Your task to perform on an android device: Go to ESPN.com Image 0: 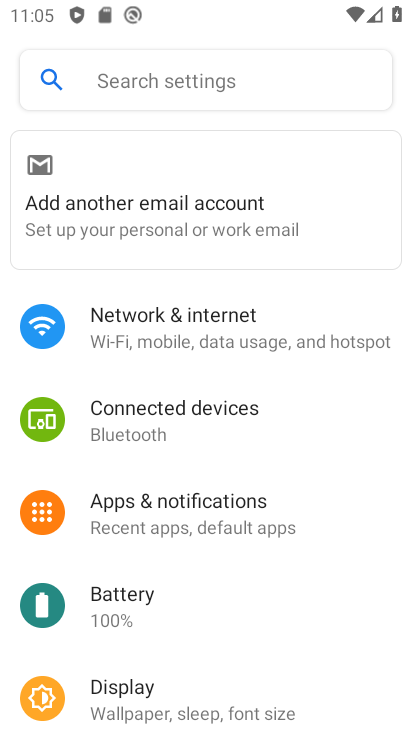
Step 0: press home button
Your task to perform on an android device: Go to ESPN.com Image 1: 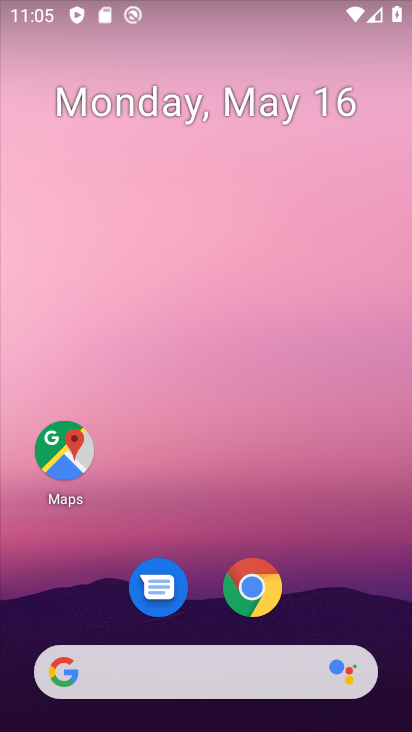
Step 1: drag from (322, 523) to (302, 266)
Your task to perform on an android device: Go to ESPN.com Image 2: 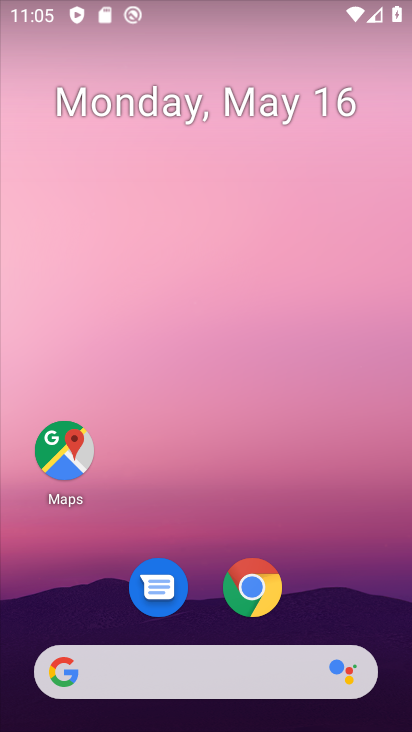
Step 2: click (248, 574)
Your task to perform on an android device: Go to ESPN.com Image 3: 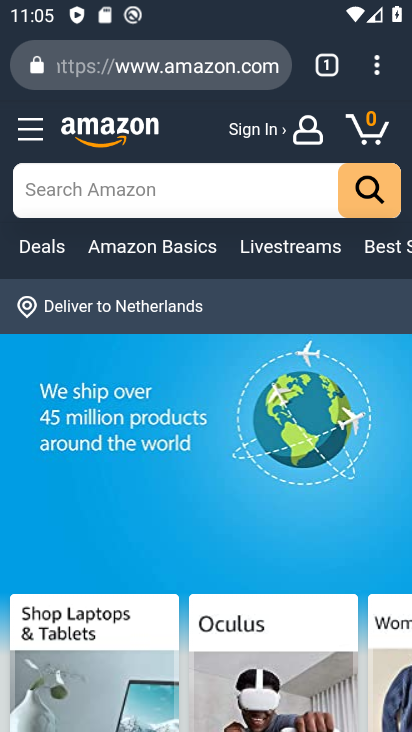
Step 3: click (360, 64)
Your task to perform on an android device: Go to ESPN.com Image 4: 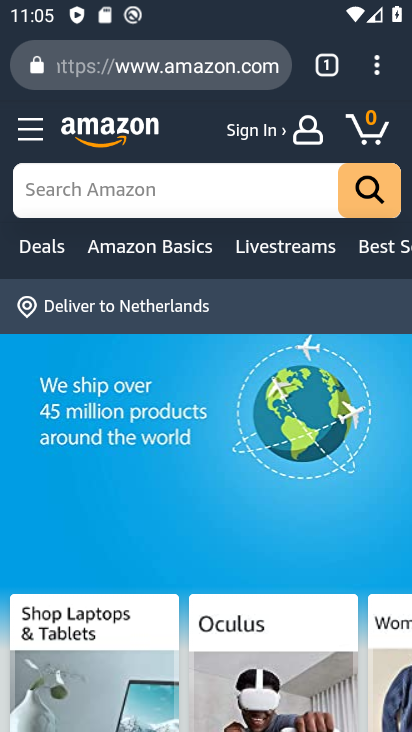
Step 4: click (370, 66)
Your task to perform on an android device: Go to ESPN.com Image 5: 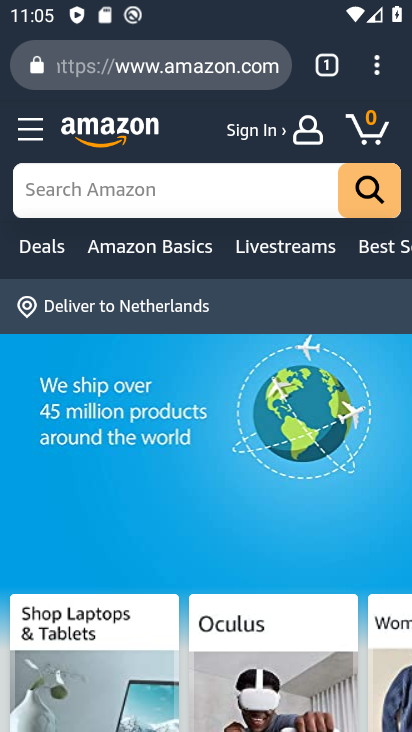
Step 5: click (371, 66)
Your task to perform on an android device: Go to ESPN.com Image 6: 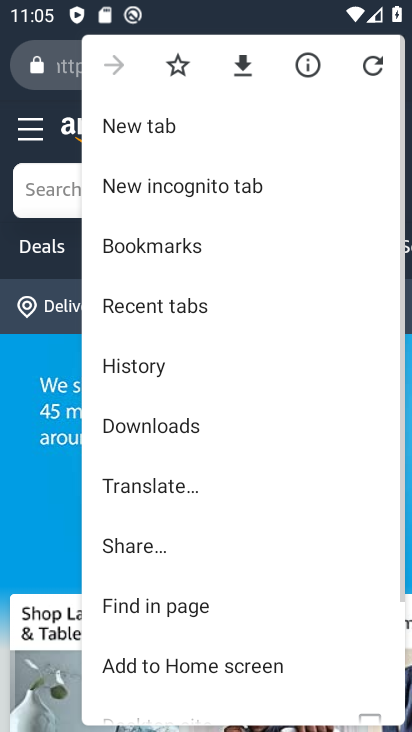
Step 6: click (162, 123)
Your task to perform on an android device: Go to ESPN.com Image 7: 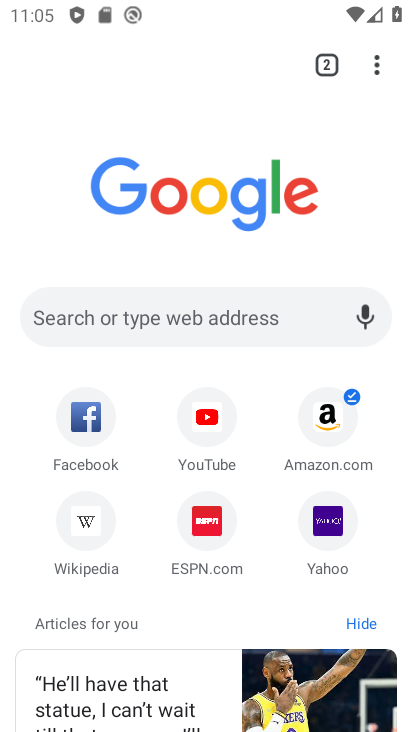
Step 7: click (222, 503)
Your task to perform on an android device: Go to ESPN.com Image 8: 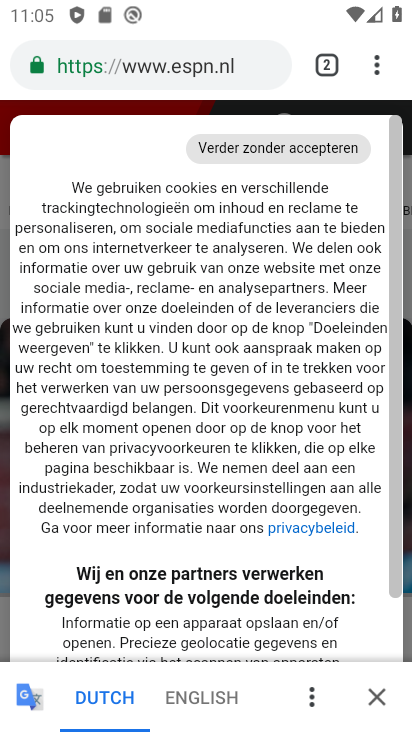
Step 8: drag from (337, 623) to (343, 200)
Your task to perform on an android device: Go to ESPN.com Image 9: 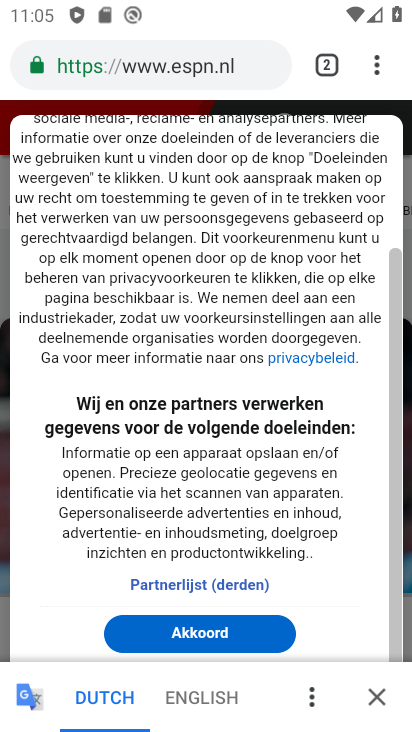
Step 9: click (214, 640)
Your task to perform on an android device: Go to ESPN.com Image 10: 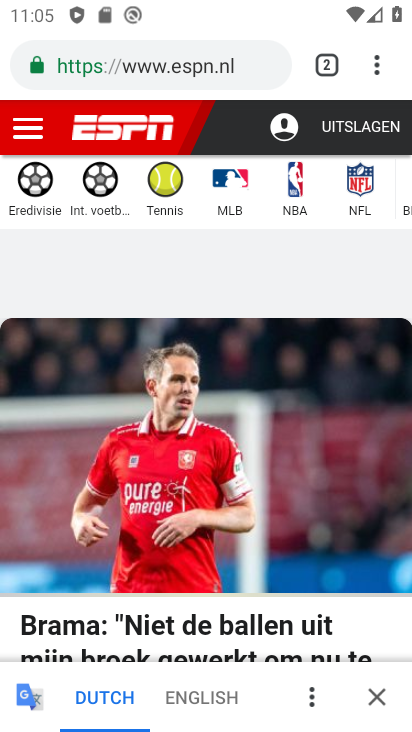
Step 10: task complete